Your task to perform on an android device: Open Wikipedia Image 0: 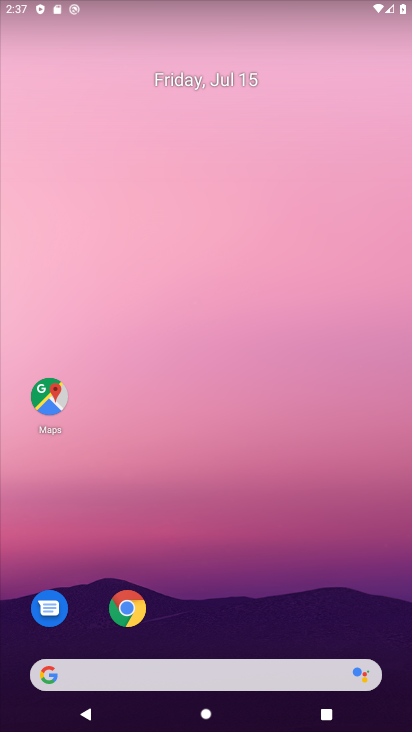
Step 0: click (131, 612)
Your task to perform on an android device: Open Wikipedia Image 1: 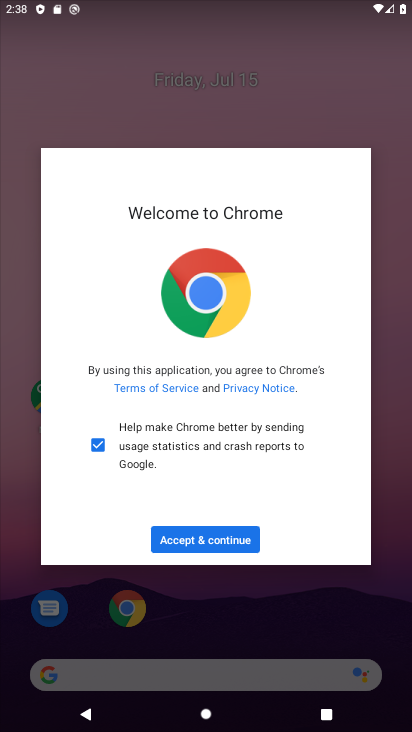
Step 1: click (187, 539)
Your task to perform on an android device: Open Wikipedia Image 2: 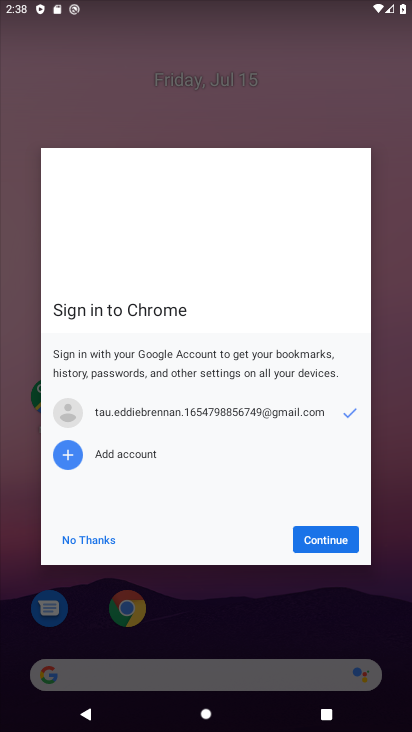
Step 2: click (323, 539)
Your task to perform on an android device: Open Wikipedia Image 3: 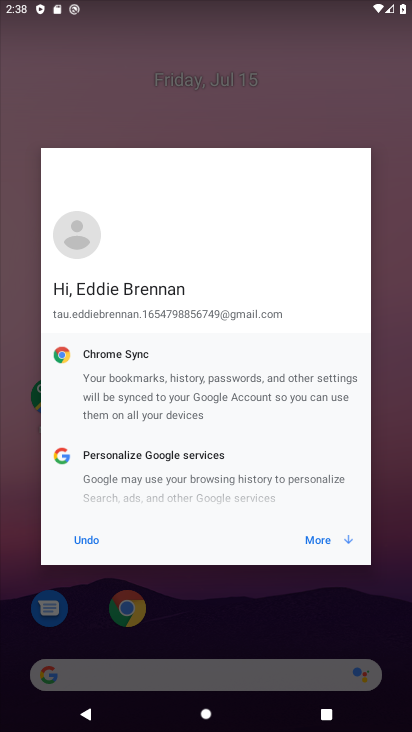
Step 3: click (320, 539)
Your task to perform on an android device: Open Wikipedia Image 4: 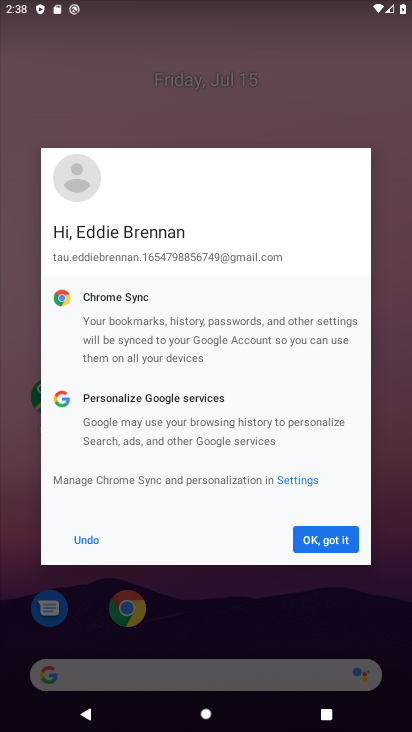
Step 4: click (320, 539)
Your task to perform on an android device: Open Wikipedia Image 5: 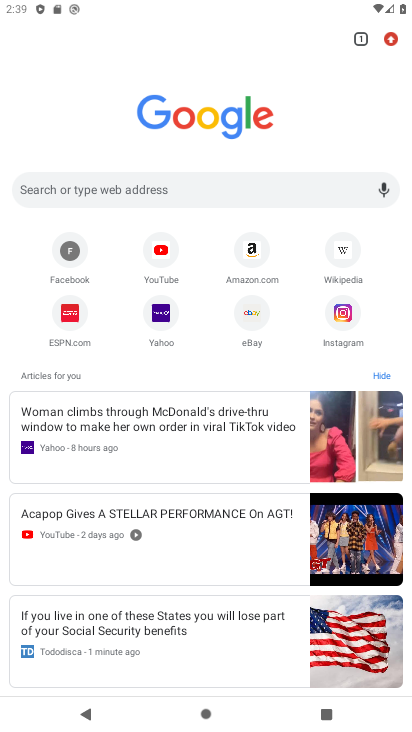
Step 5: click (327, 250)
Your task to perform on an android device: Open Wikipedia Image 6: 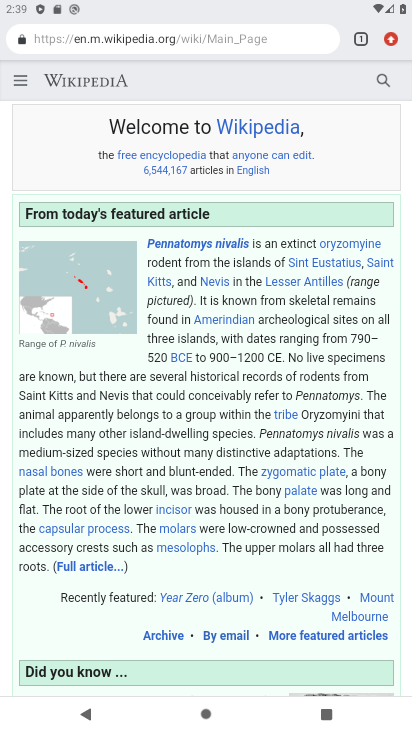
Step 6: task complete